Your task to perform on an android device: turn notification dots on Image 0: 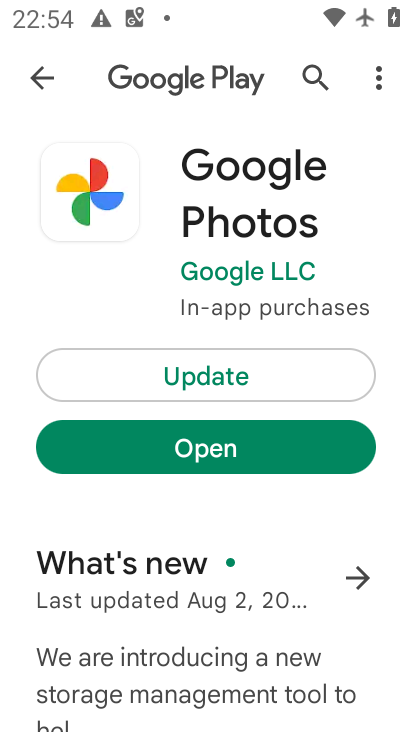
Step 0: press home button
Your task to perform on an android device: turn notification dots on Image 1: 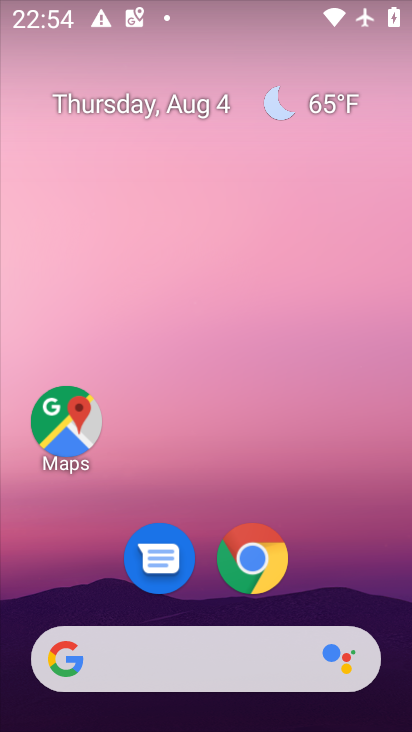
Step 1: drag from (337, 563) to (331, 111)
Your task to perform on an android device: turn notification dots on Image 2: 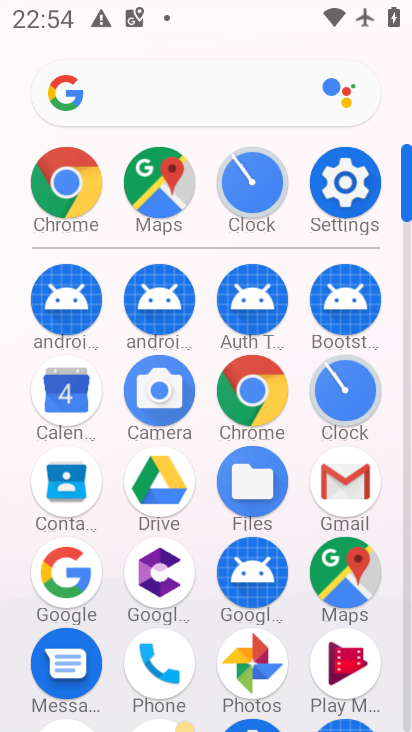
Step 2: drag from (198, 587) to (215, 239)
Your task to perform on an android device: turn notification dots on Image 3: 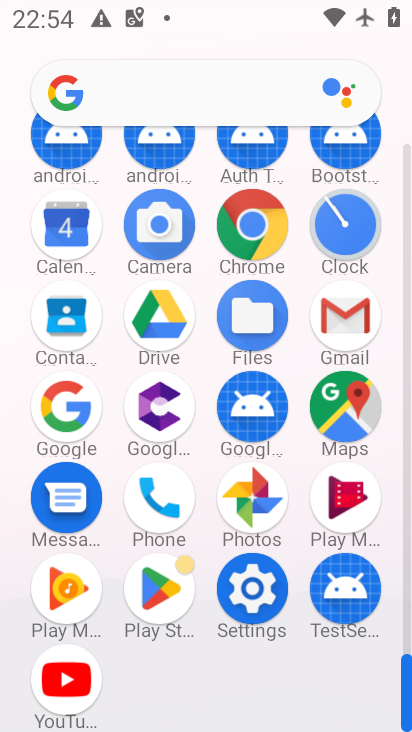
Step 3: click (254, 594)
Your task to perform on an android device: turn notification dots on Image 4: 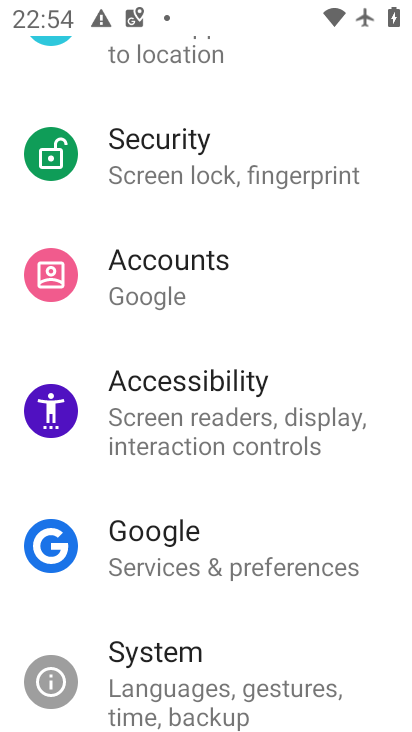
Step 4: drag from (323, 647) to (327, 210)
Your task to perform on an android device: turn notification dots on Image 5: 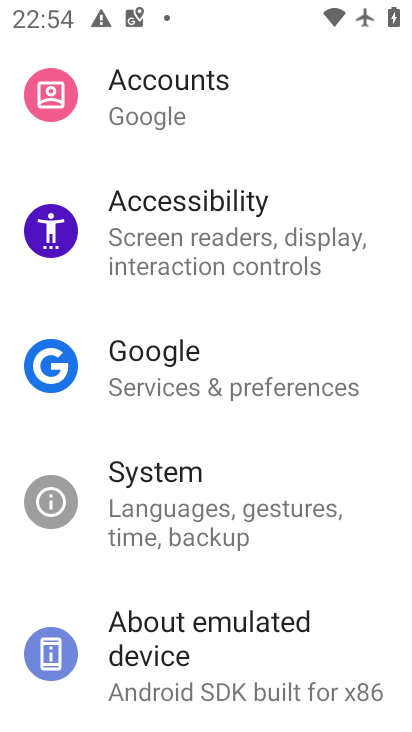
Step 5: drag from (321, 158) to (262, 653)
Your task to perform on an android device: turn notification dots on Image 6: 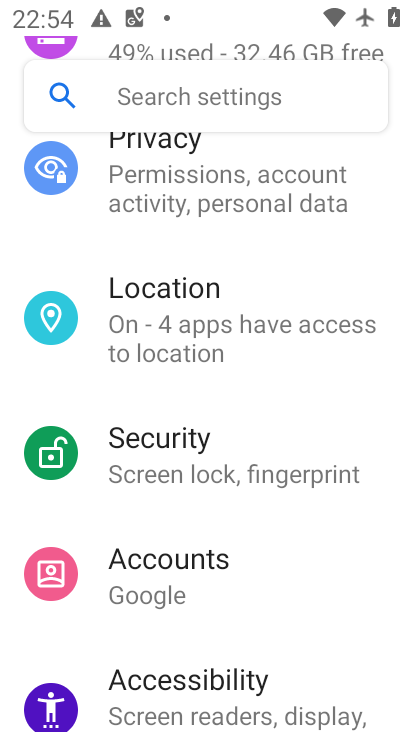
Step 6: drag from (239, 219) to (270, 587)
Your task to perform on an android device: turn notification dots on Image 7: 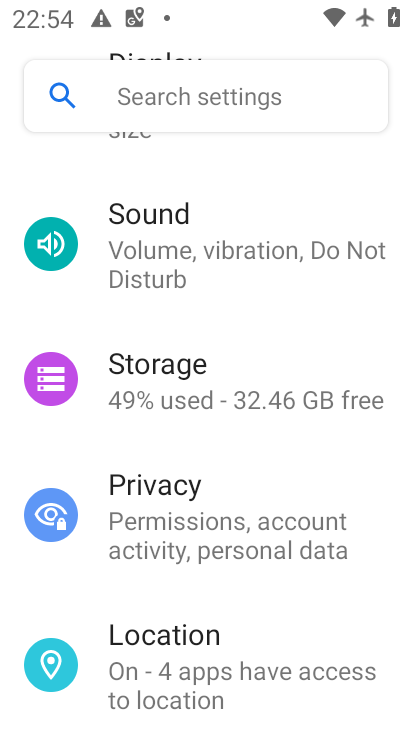
Step 7: drag from (250, 207) to (260, 557)
Your task to perform on an android device: turn notification dots on Image 8: 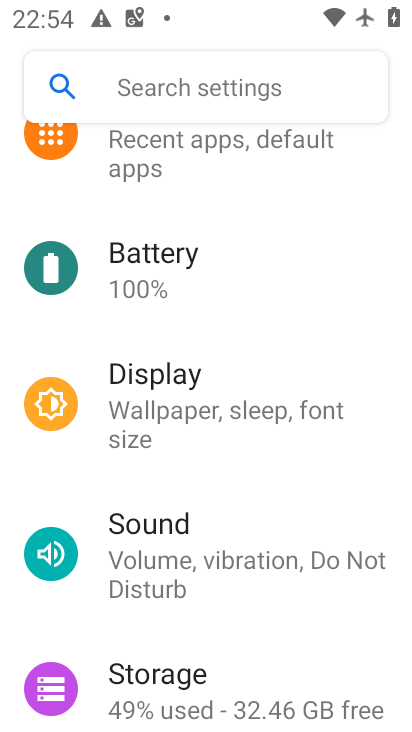
Step 8: drag from (268, 252) to (275, 515)
Your task to perform on an android device: turn notification dots on Image 9: 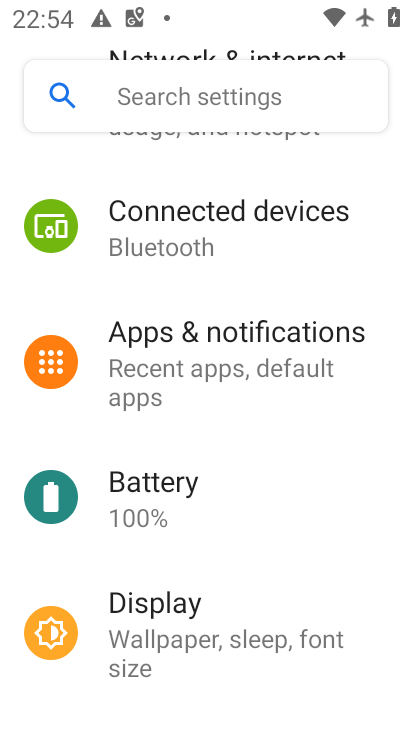
Step 9: click (271, 348)
Your task to perform on an android device: turn notification dots on Image 10: 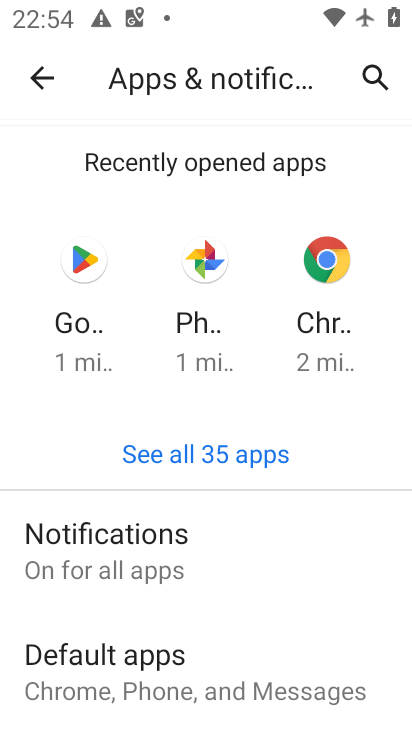
Step 10: click (127, 536)
Your task to perform on an android device: turn notification dots on Image 11: 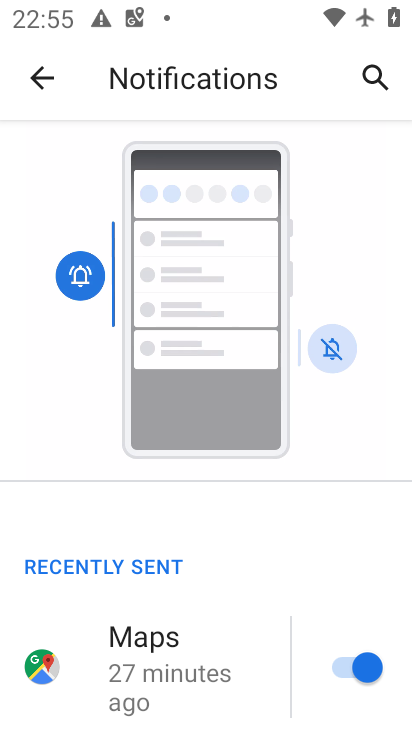
Step 11: drag from (244, 523) to (263, 3)
Your task to perform on an android device: turn notification dots on Image 12: 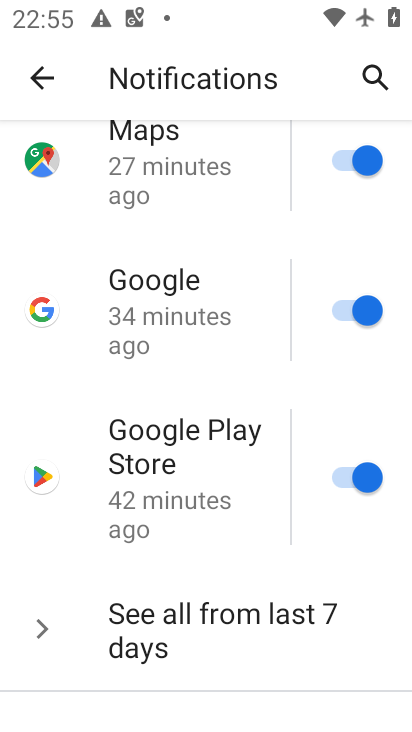
Step 12: drag from (183, 573) to (205, 109)
Your task to perform on an android device: turn notification dots on Image 13: 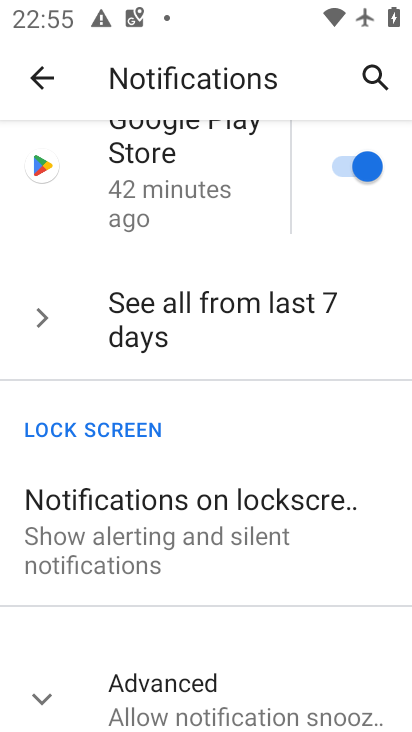
Step 13: drag from (214, 579) to (242, 191)
Your task to perform on an android device: turn notification dots on Image 14: 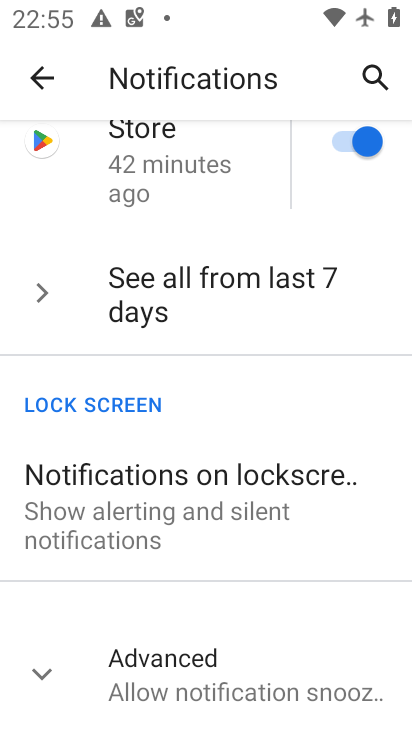
Step 14: click (194, 667)
Your task to perform on an android device: turn notification dots on Image 15: 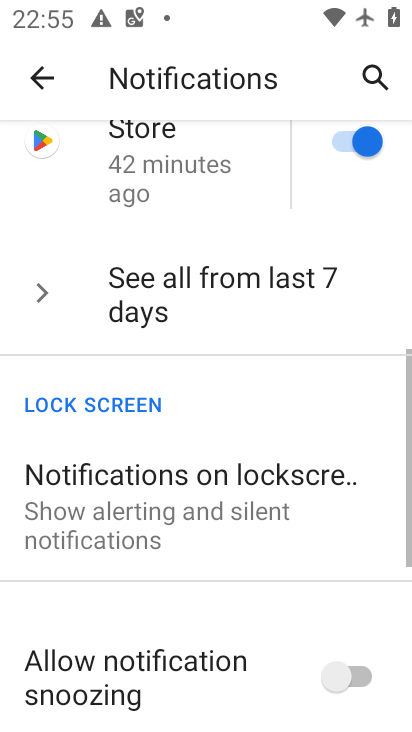
Step 15: task complete